Your task to perform on an android device: turn pop-ups off in chrome Image 0: 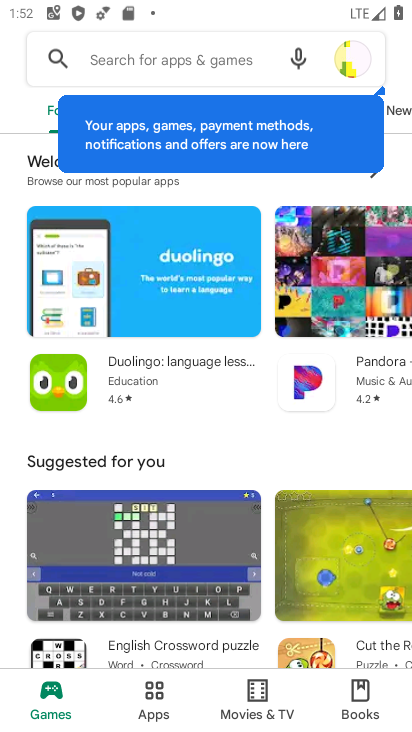
Step 0: press home button
Your task to perform on an android device: turn pop-ups off in chrome Image 1: 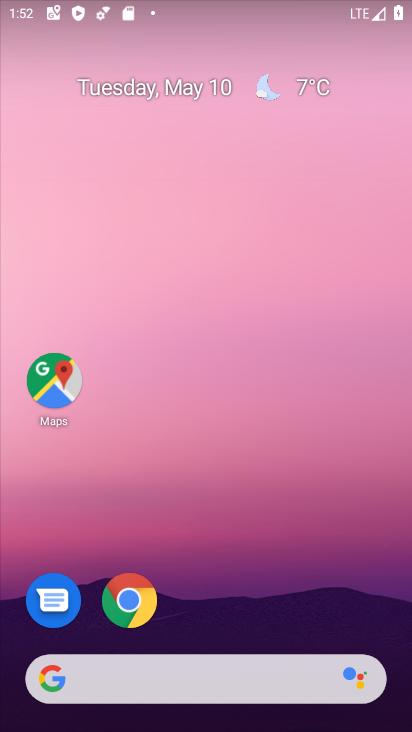
Step 1: drag from (181, 682) to (347, 136)
Your task to perform on an android device: turn pop-ups off in chrome Image 2: 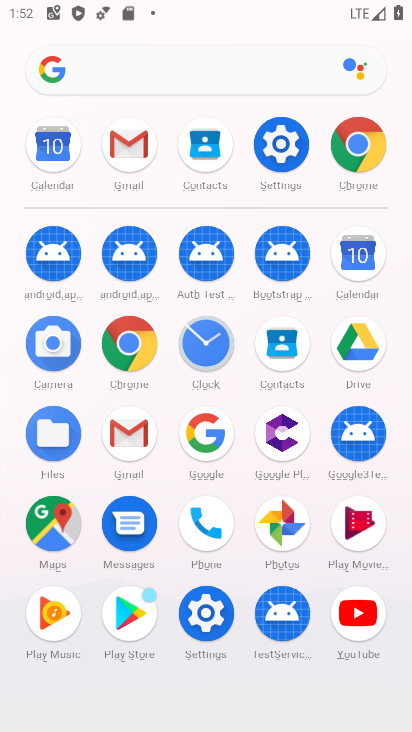
Step 2: click (357, 162)
Your task to perform on an android device: turn pop-ups off in chrome Image 3: 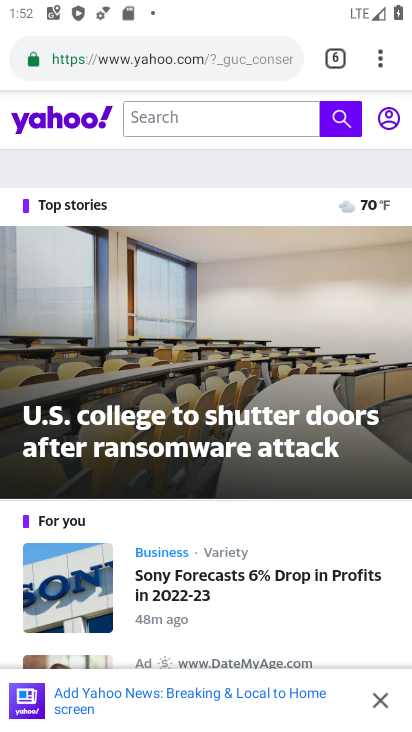
Step 3: drag from (379, 63) to (229, 635)
Your task to perform on an android device: turn pop-ups off in chrome Image 4: 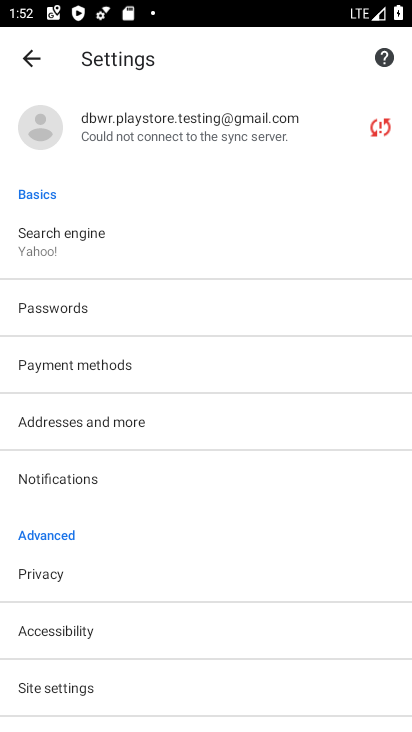
Step 4: drag from (154, 601) to (228, 238)
Your task to perform on an android device: turn pop-ups off in chrome Image 5: 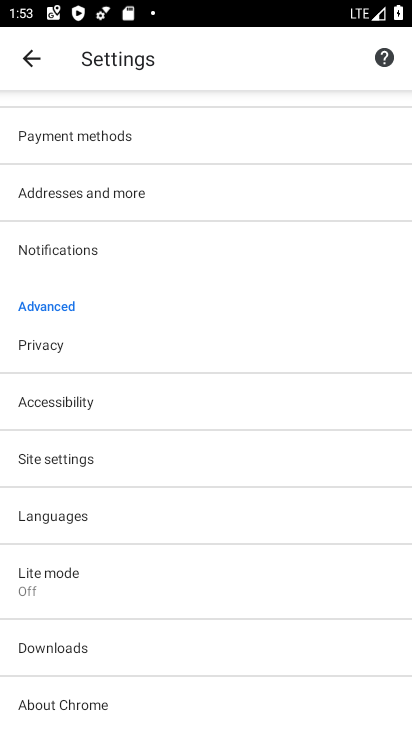
Step 5: click (92, 460)
Your task to perform on an android device: turn pop-ups off in chrome Image 6: 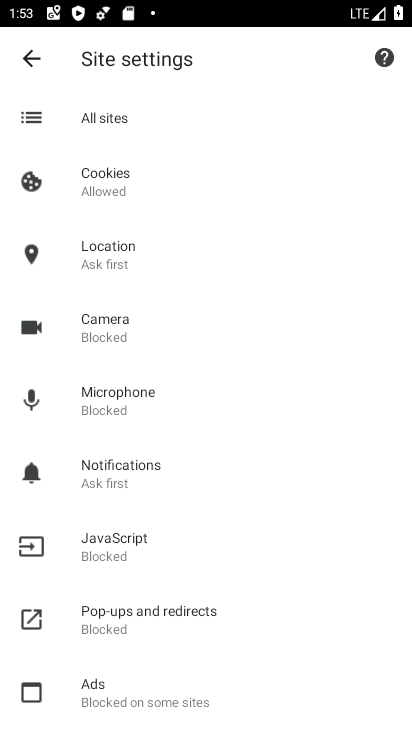
Step 6: click (137, 612)
Your task to perform on an android device: turn pop-ups off in chrome Image 7: 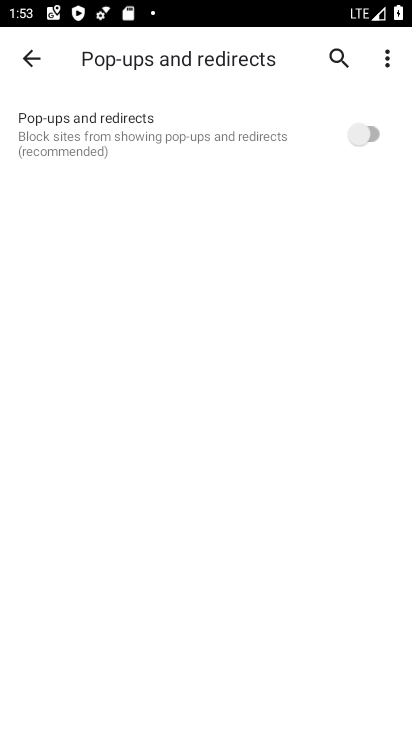
Step 7: task complete